Your task to perform on an android device: Open Chrome and go to the settings page Image 0: 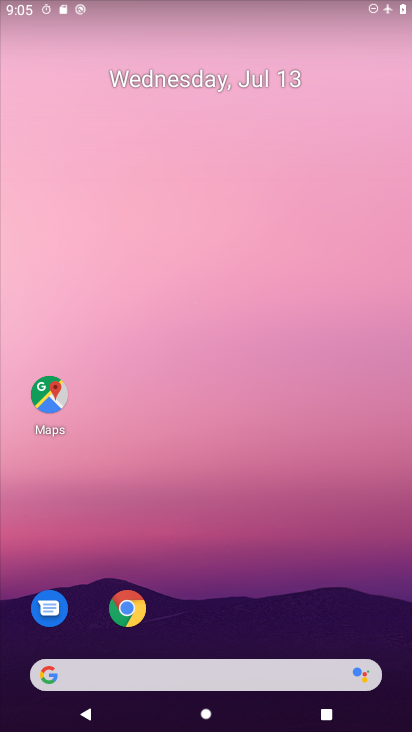
Step 0: drag from (275, 684) to (216, 172)
Your task to perform on an android device: Open Chrome and go to the settings page Image 1: 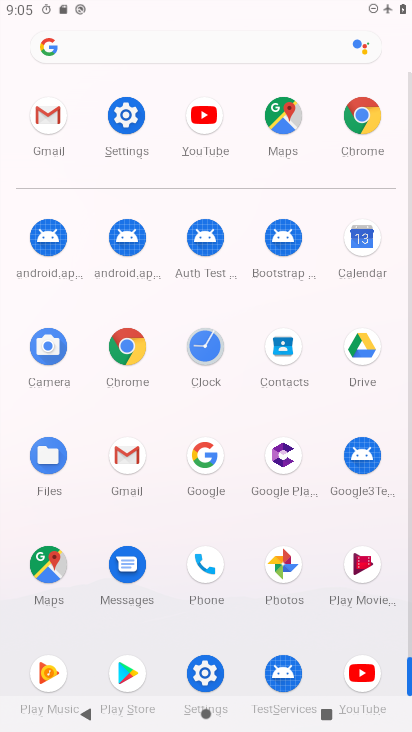
Step 1: click (366, 121)
Your task to perform on an android device: Open Chrome and go to the settings page Image 2: 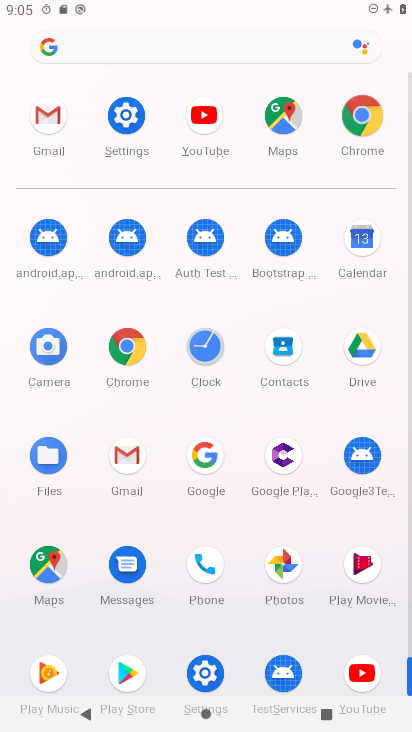
Step 2: click (366, 121)
Your task to perform on an android device: Open Chrome and go to the settings page Image 3: 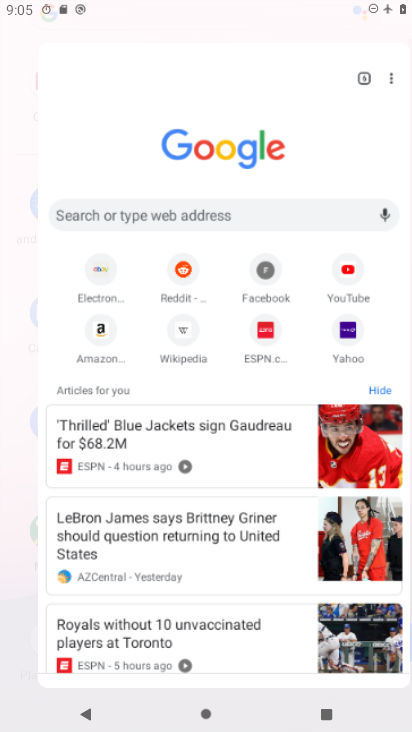
Step 3: click (366, 121)
Your task to perform on an android device: Open Chrome and go to the settings page Image 4: 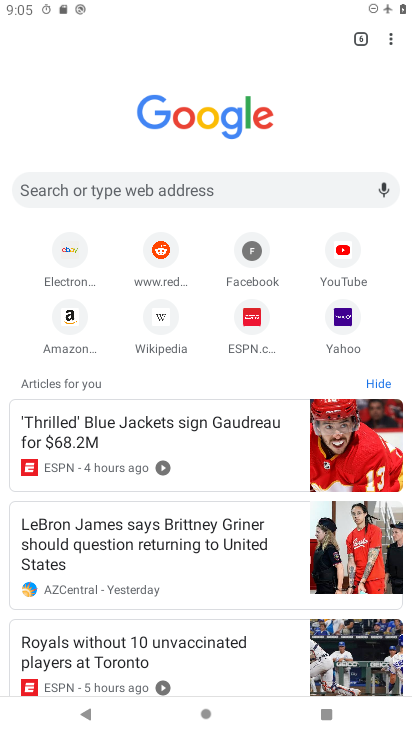
Step 4: drag from (391, 34) to (254, 331)
Your task to perform on an android device: Open Chrome and go to the settings page Image 5: 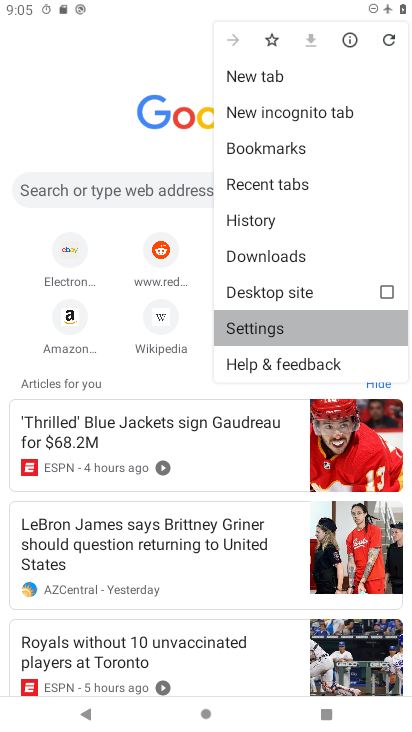
Step 5: click (258, 330)
Your task to perform on an android device: Open Chrome and go to the settings page Image 6: 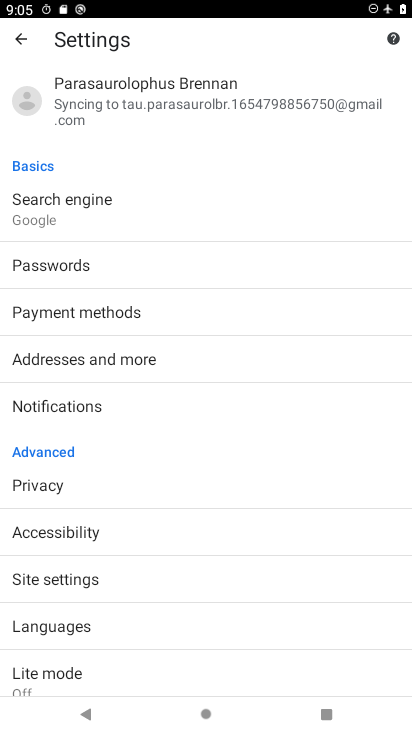
Step 6: task complete